Your task to perform on an android device: Empty the shopping cart on bestbuy.com. Image 0: 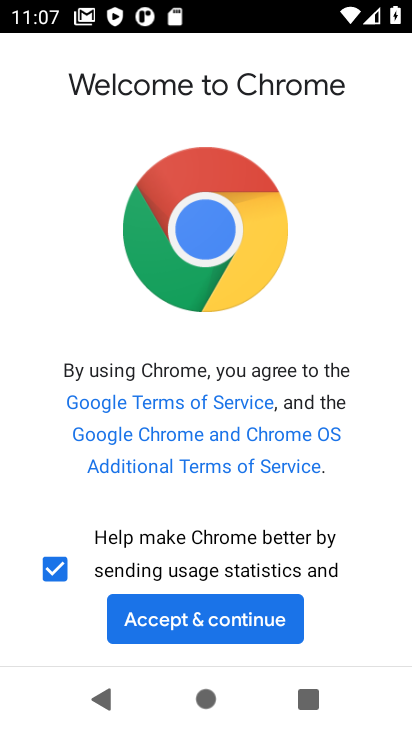
Step 0: click (259, 624)
Your task to perform on an android device: Empty the shopping cart on bestbuy.com. Image 1: 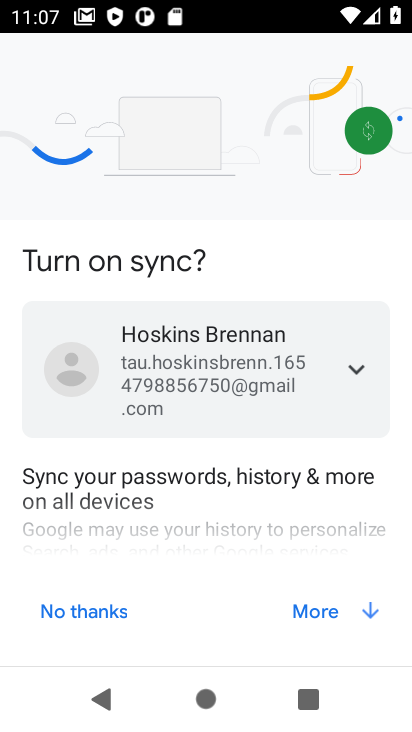
Step 1: click (331, 612)
Your task to perform on an android device: Empty the shopping cart on bestbuy.com. Image 2: 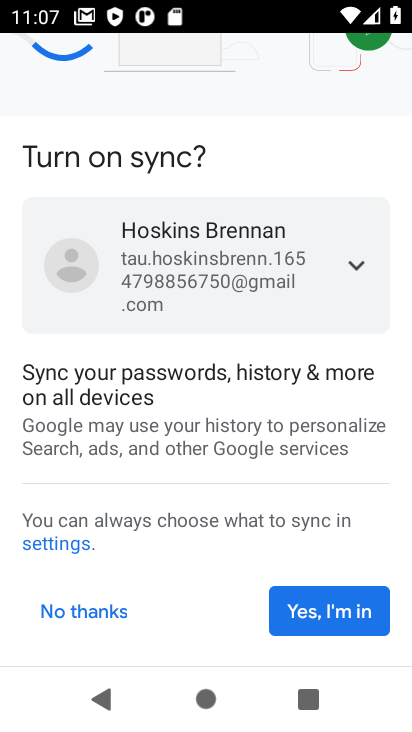
Step 2: click (331, 612)
Your task to perform on an android device: Empty the shopping cart on bestbuy.com. Image 3: 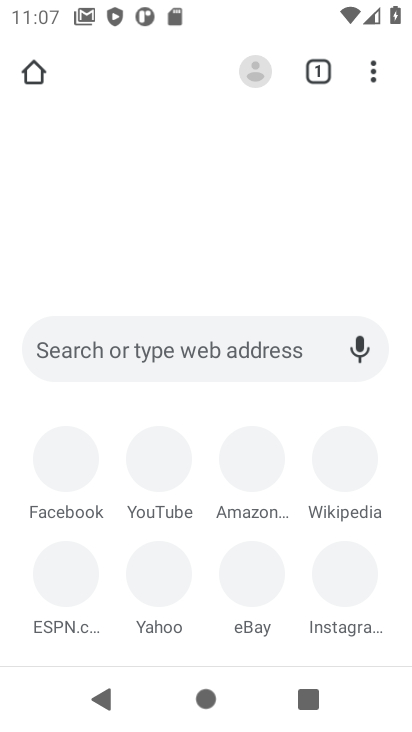
Step 3: click (173, 73)
Your task to perform on an android device: Empty the shopping cart on bestbuy.com. Image 4: 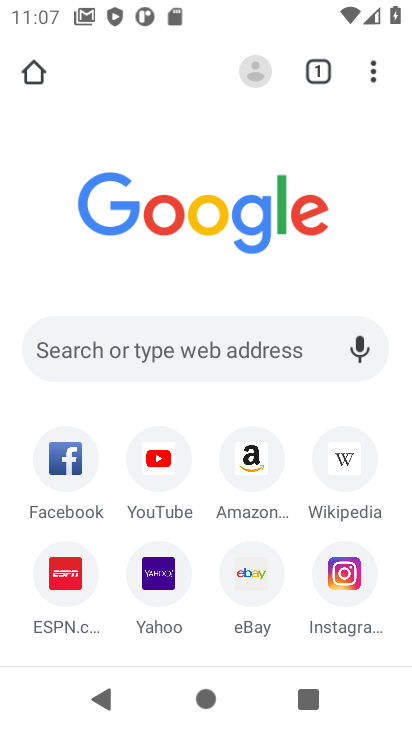
Step 4: click (177, 341)
Your task to perform on an android device: Empty the shopping cart on bestbuy.com. Image 5: 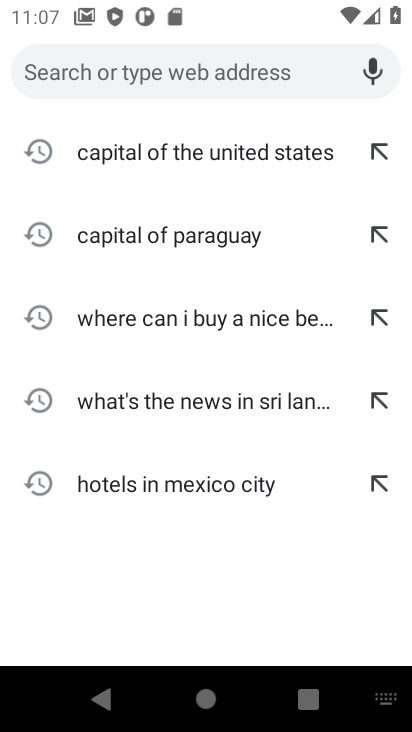
Step 5: type "bestbuy.com"
Your task to perform on an android device: Empty the shopping cart on bestbuy.com. Image 6: 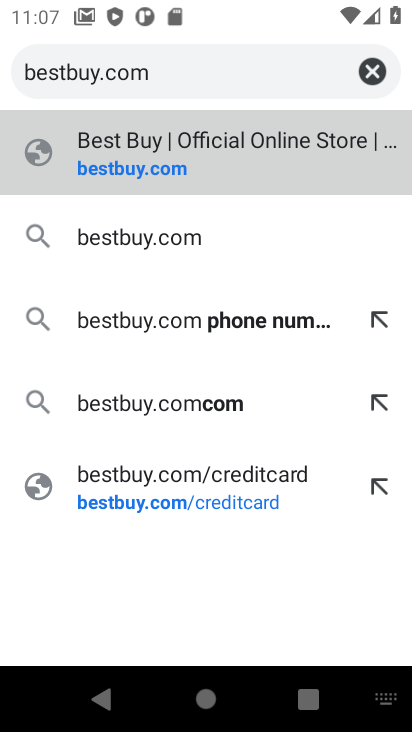
Step 6: press enter
Your task to perform on an android device: Empty the shopping cart on bestbuy.com. Image 7: 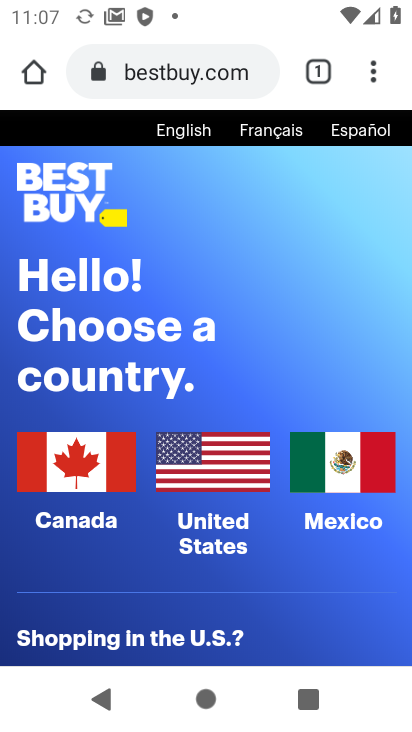
Step 7: click (83, 461)
Your task to perform on an android device: Empty the shopping cart on bestbuy.com. Image 8: 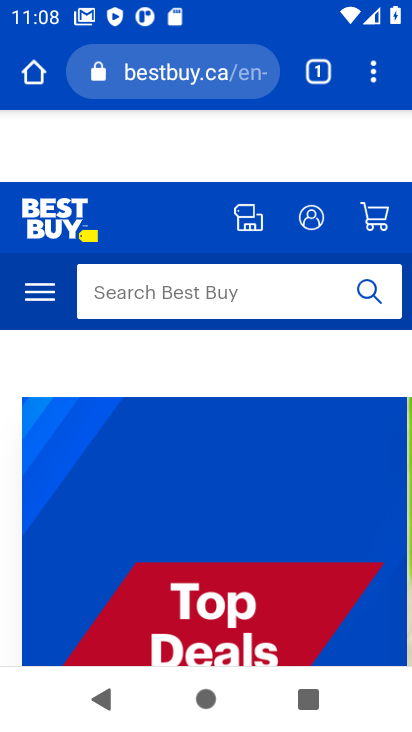
Step 8: click (375, 218)
Your task to perform on an android device: Empty the shopping cart on bestbuy.com. Image 9: 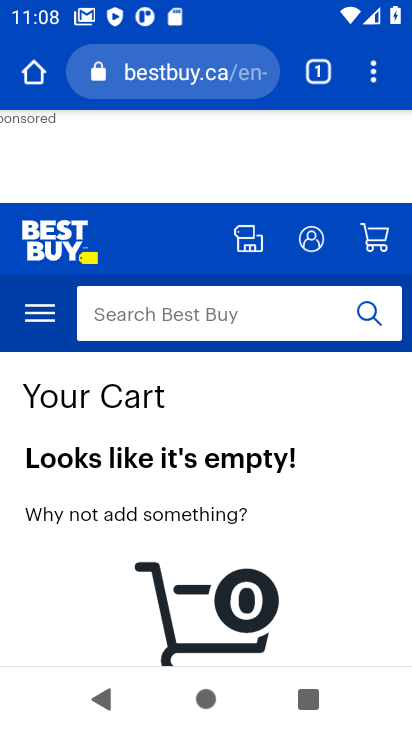
Step 9: task complete